Your task to perform on an android device: change your default location settings in chrome Image 0: 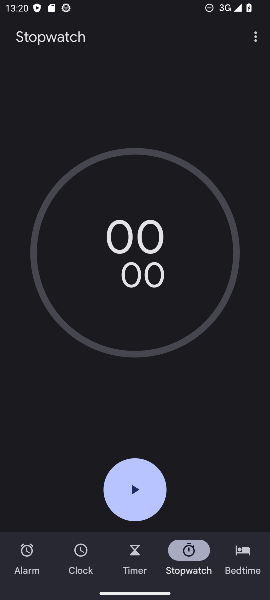
Step 0: press home button
Your task to perform on an android device: change your default location settings in chrome Image 1: 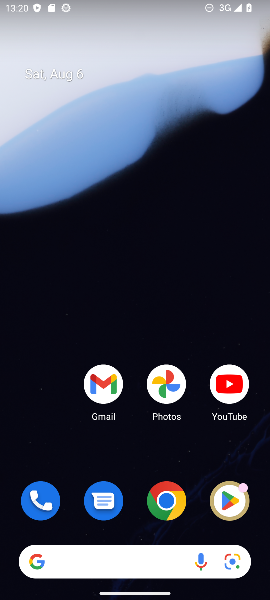
Step 1: click (160, 508)
Your task to perform on an android device: change your default location settings in chrome Image 2: 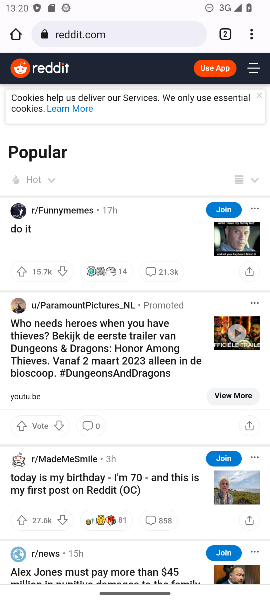
Step 2: click (252, 35)
Your task to perform on an android device: change your default location settings in chrome Image 3: 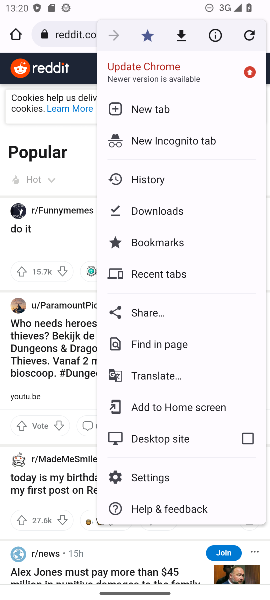
Step 3: click (152, 479)
Your task to perform on an android device: change your default location settings in chrome Image 4: 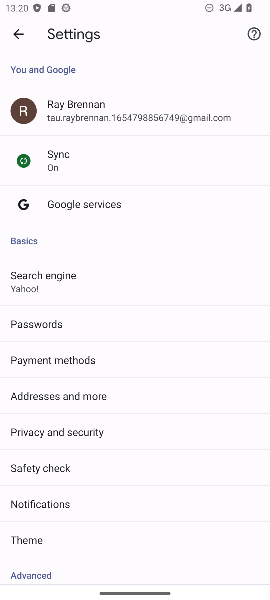
Step 4: drag from (45, 537) to (46, 217)
Your task to perform on an android device: change your default location settings in chrome Image 5: 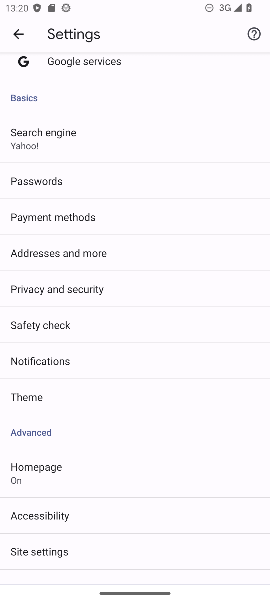
Step 5: click (55, 553)
Your task to perform on an android device: change your default location settings in chrome Image 6: 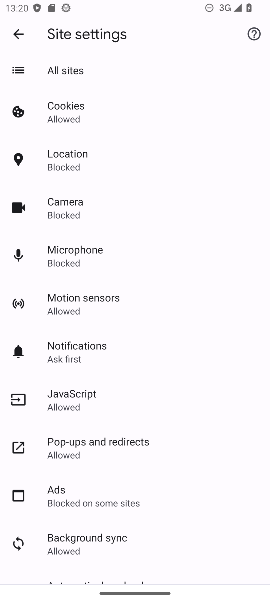
Step 6: click (67, 156)
Your task to perform on an android device: change your default location settings in chrome Image 7: 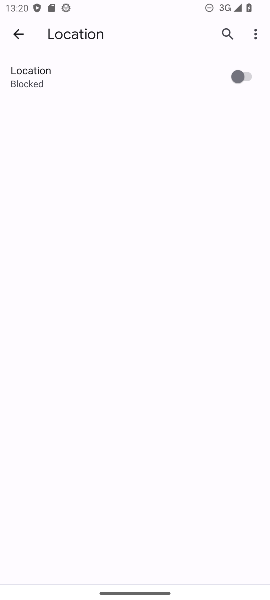
Step 7: click (246, 75)
Your task to perform on an android device: change your default location settings in chrome Image 8: 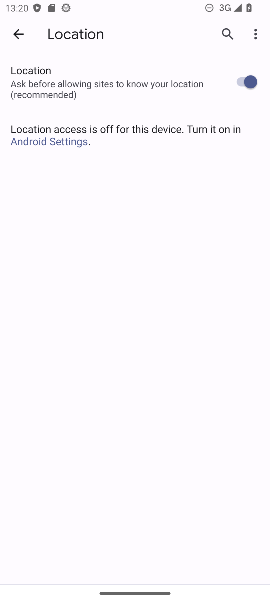
Step 8: task complete